Your task to perform on an android device: Open battery settings Image 0: 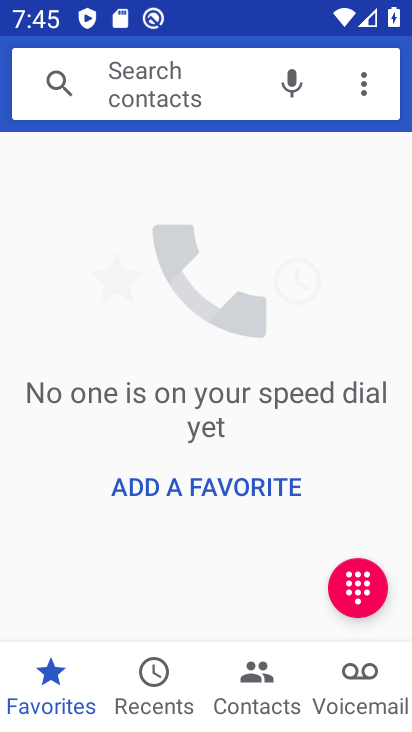
Step 0: press home button
Your task to perform on an android device: Open battery settings Image 1: 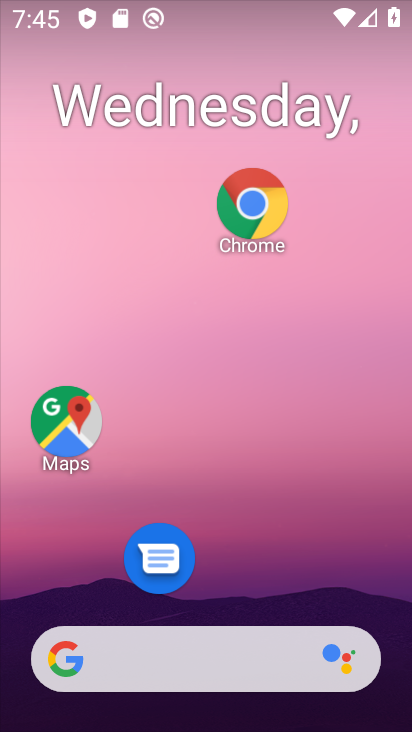
Step 1: drag from (244, 517) to (289, 1)
Your task to perform on an android device: Open battery settings Image 2: 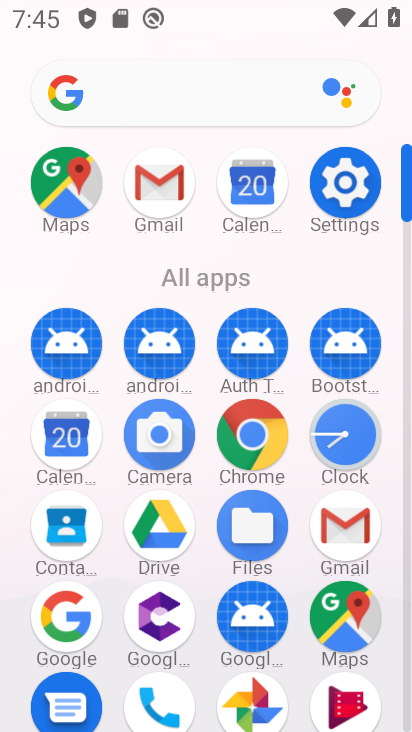
Step 2: click (341, 175)
Your task to perform on an android device: Open battery settings Image 3: 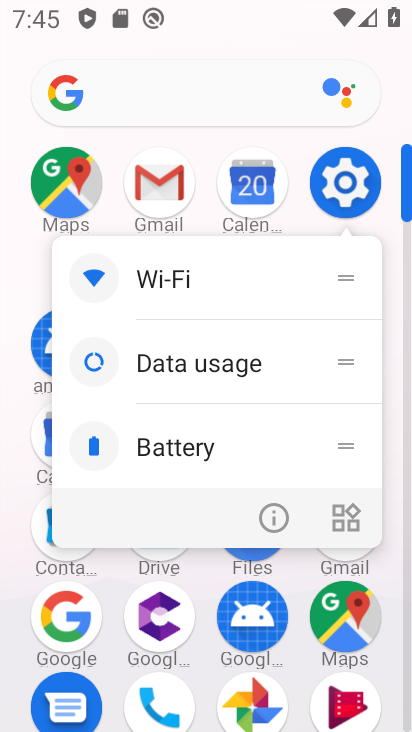
Step 3: click (348, 176)
Your task to perform on an android device: Open battery settings Image 4: 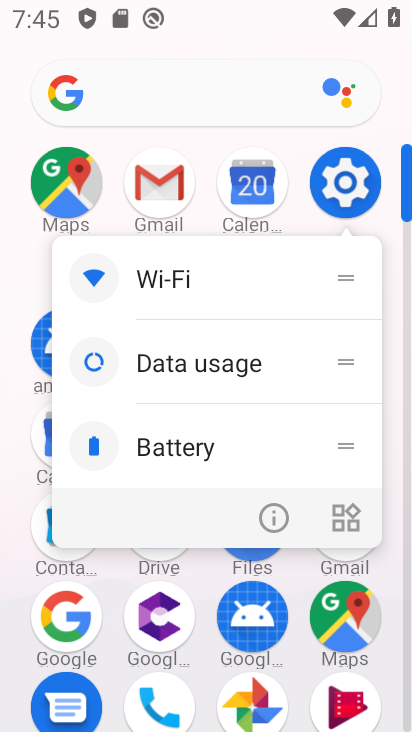
Step 4: click (348, 176)
Your task to perform on an android device: Open battery settings Image 5: 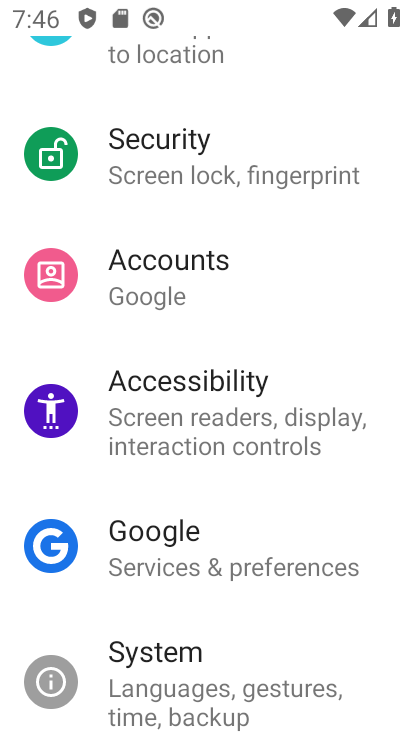
Step 5: drag from (206, 148) to (203, 722)
Your task to perform on an android device: Open battery settings Image 6: 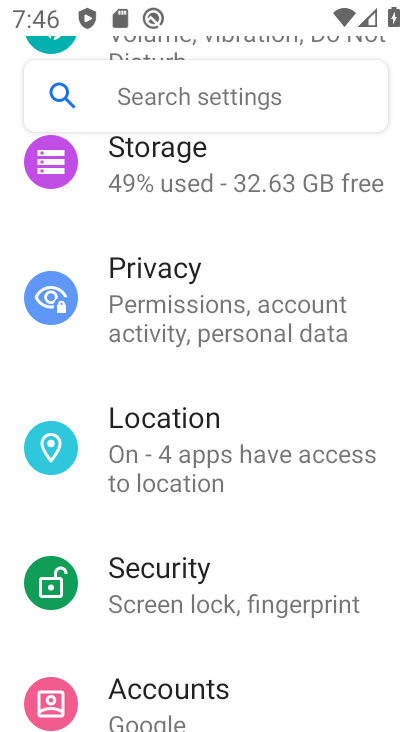
Step 6: drag from (185, 183) to (215, 721)
Your task to perform on an android device: Open battery settings Image 7: 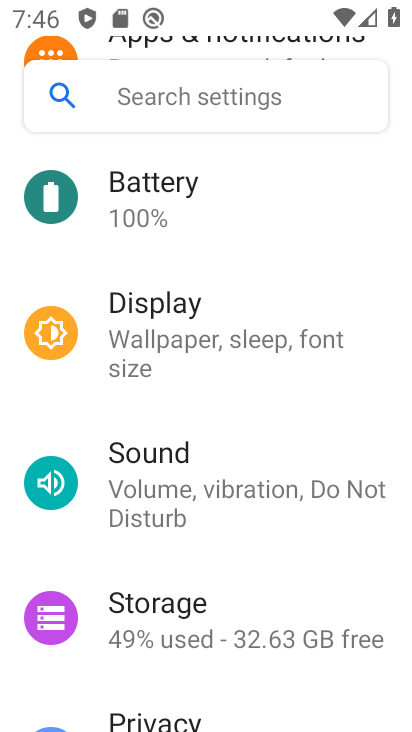
Step 7: click (171, 197)
Your task to perform on an android device: Open battery settings Image 8: 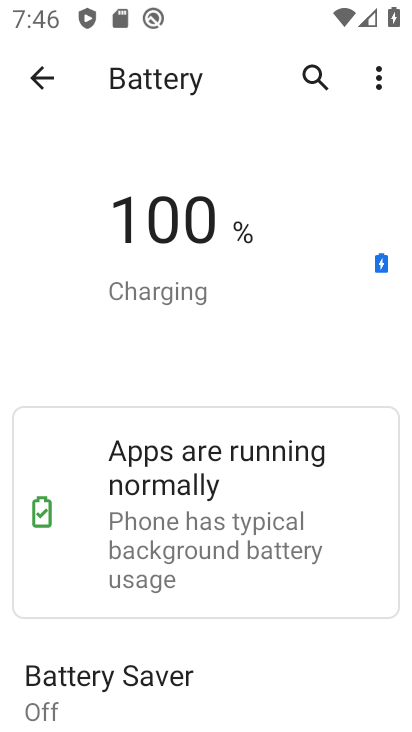
Step 8: task complete